Your task to perform on an android device: Open the map Image 0: 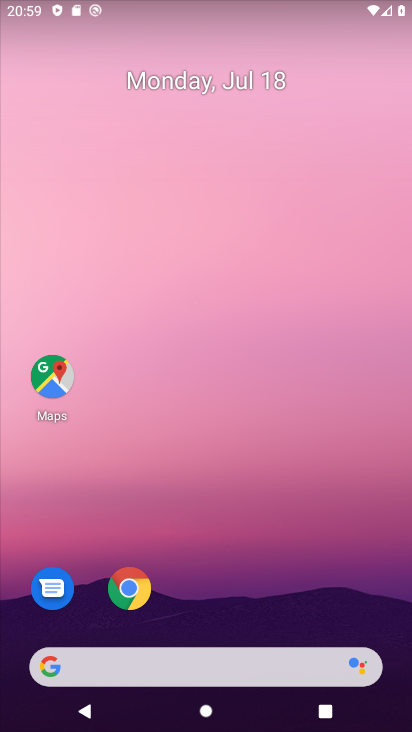
Step 0: press home button
Your task to perform on an android device: Open the map Image 1: 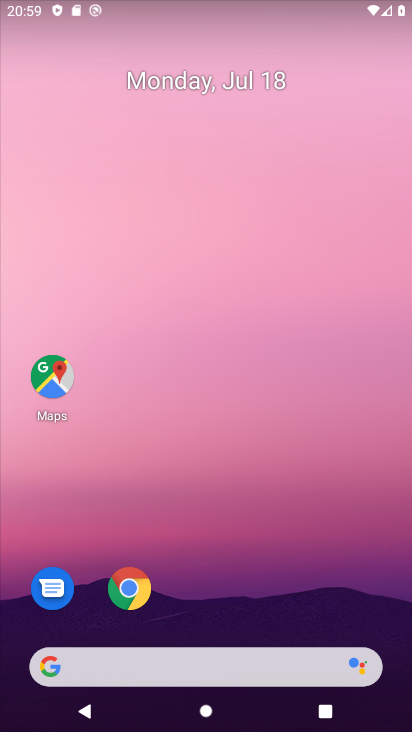
Step 1: click (69, 384)
Your task to perform on an android device: Open the map Image 2: 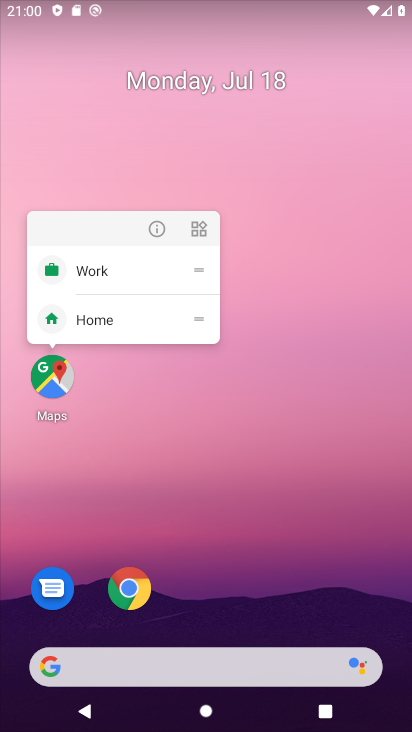
Step 2: click (69, 403)
Your task to perform on an android device: Open the map Image 3: 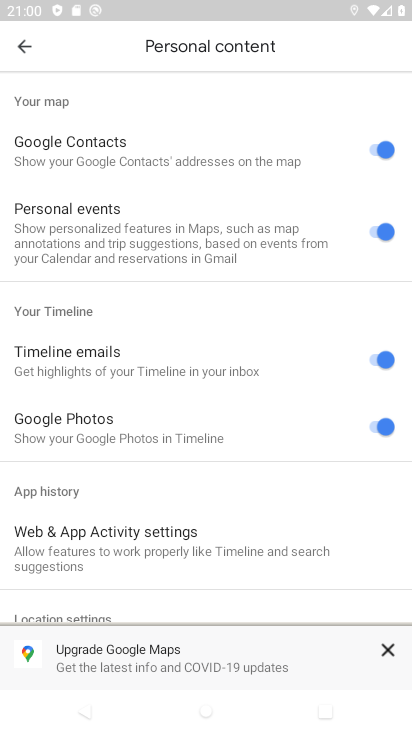
Step 3: task complete